Your task to perform on an android device: Search for pizza restaurants on Maps Image 0: 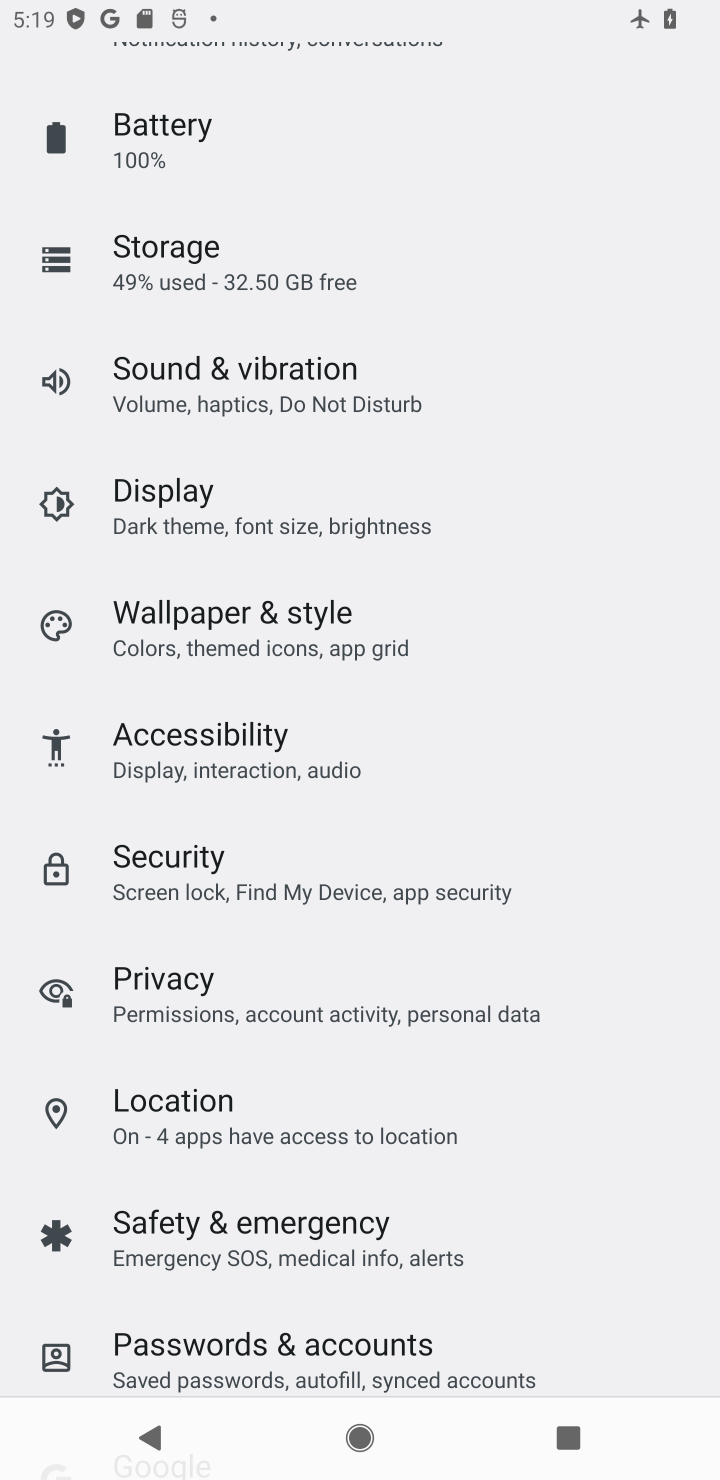
Step 0: press home button
Your task to perform on an android device: Search for pizza restaurants on Maps Image 1: 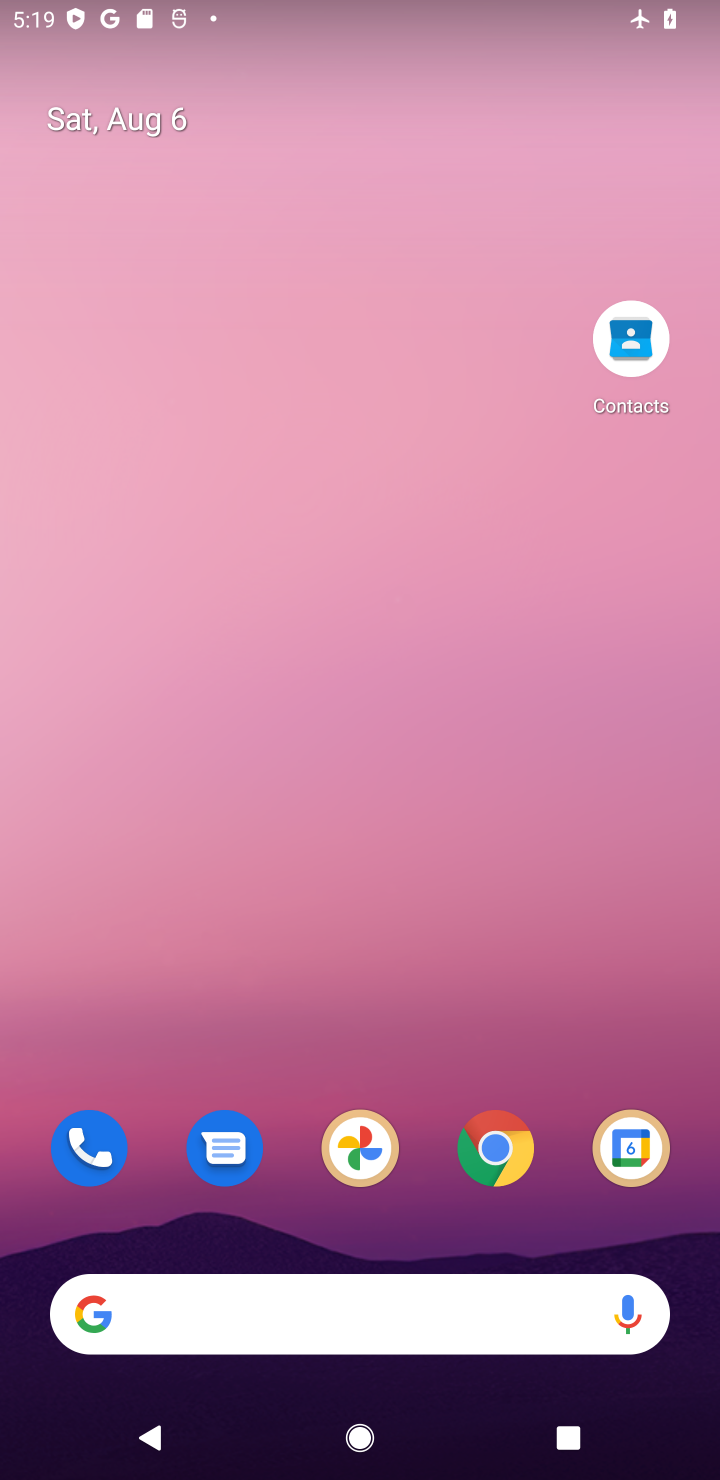
Step 1: drag from (357, 1274) to (254, 59)
Your task to perform on an android device: Search for pizza restaurants on Maps Image 2: 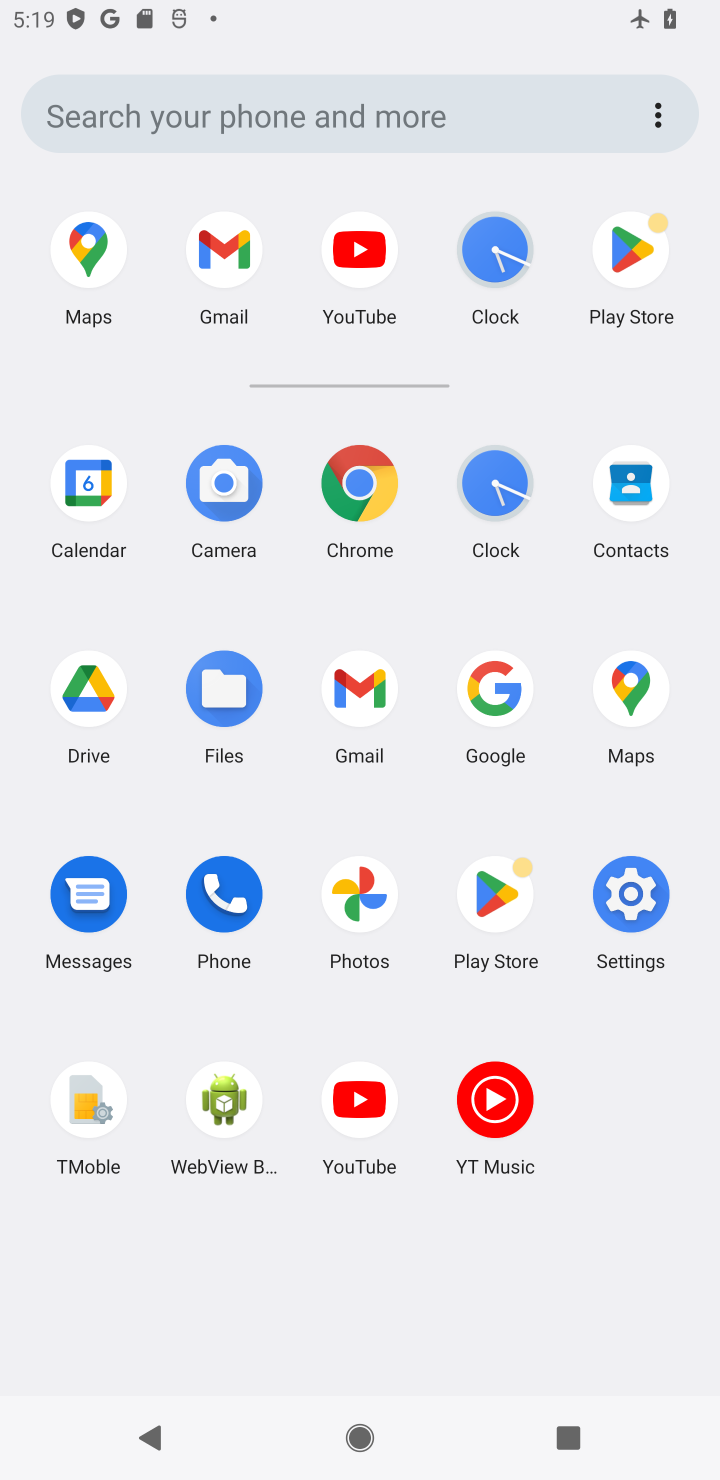
Step 2: click (641, 679)
Your task to perform on an android device: Search for pizza restaurants on Maps Image 3: 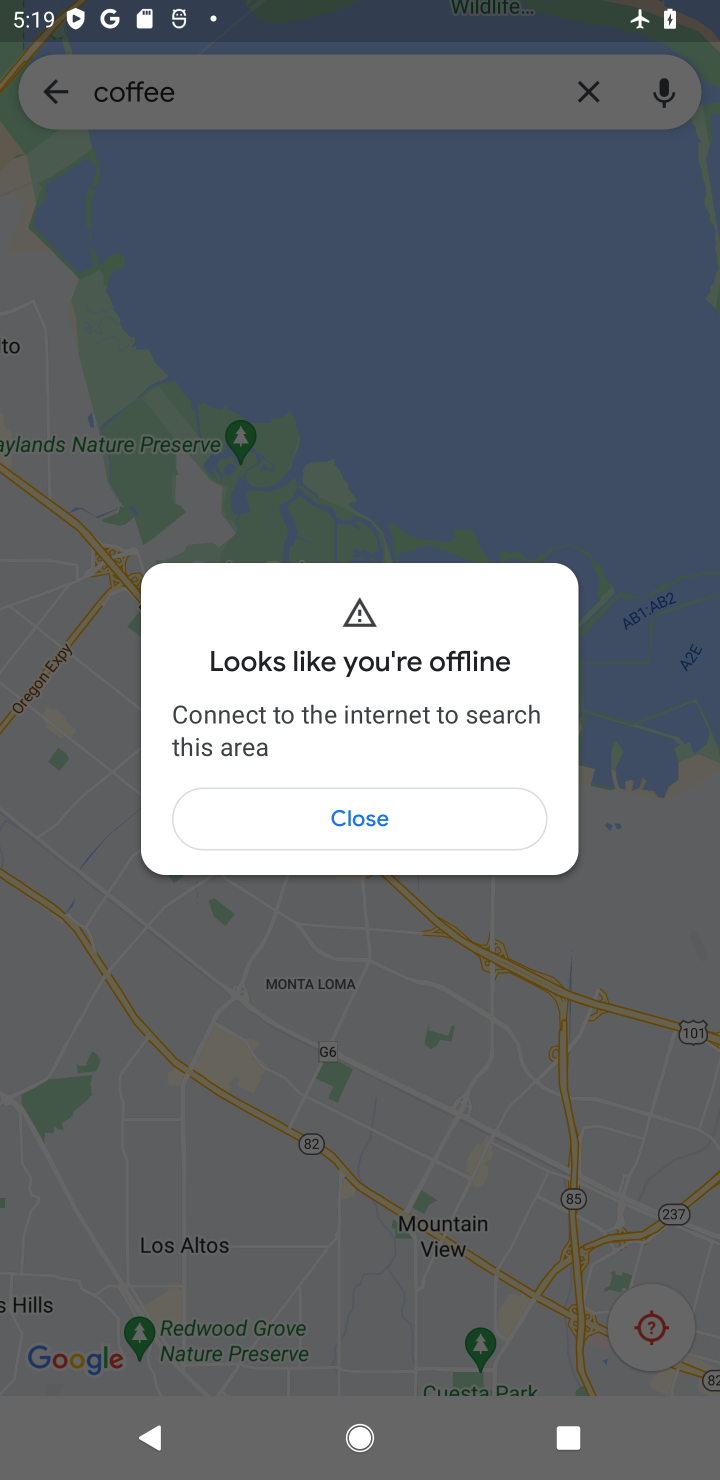
Step 3: click (371, 822)
Your task to perform on an android device: Search for pizza restaurants on Maps Image 4: 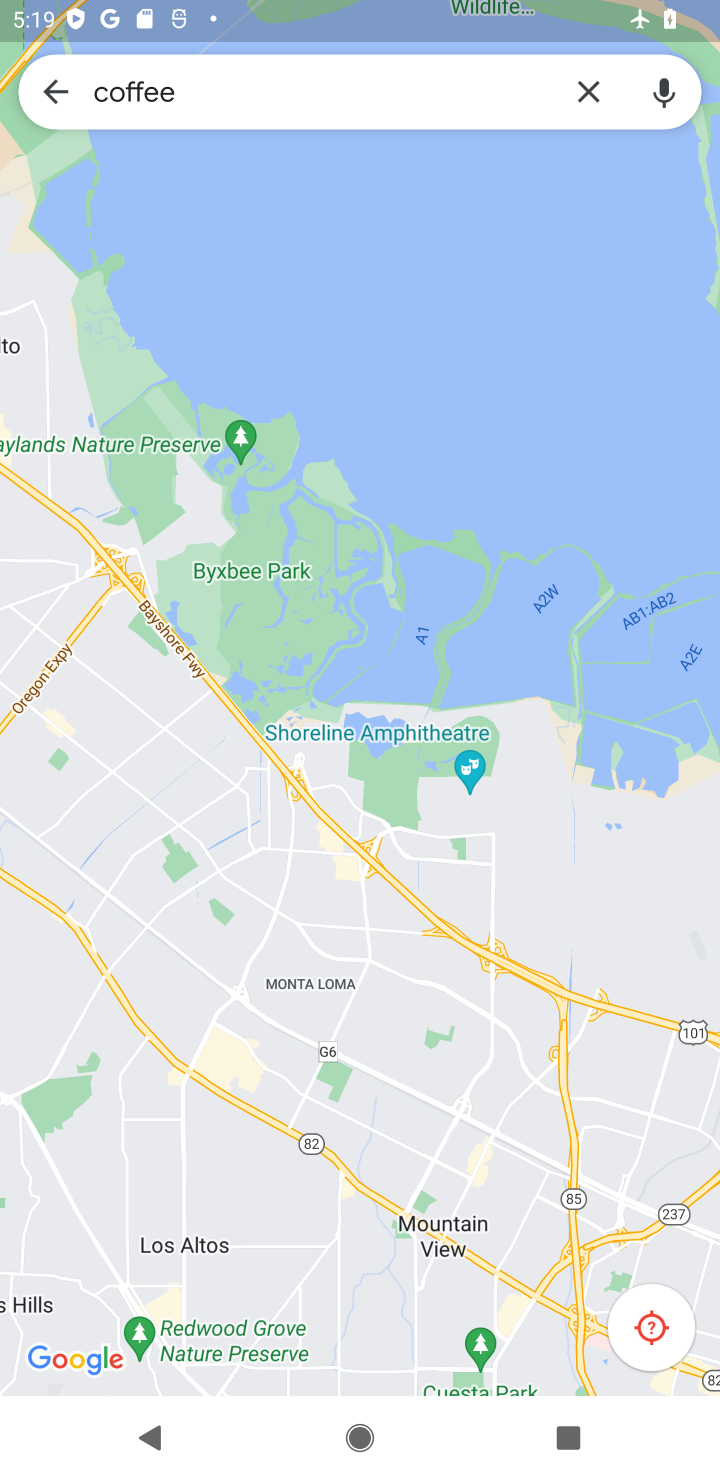
Step 4: click (584, 93)
Your task to perform on an android device: Search for pizza restaurants on Maps Image 5: 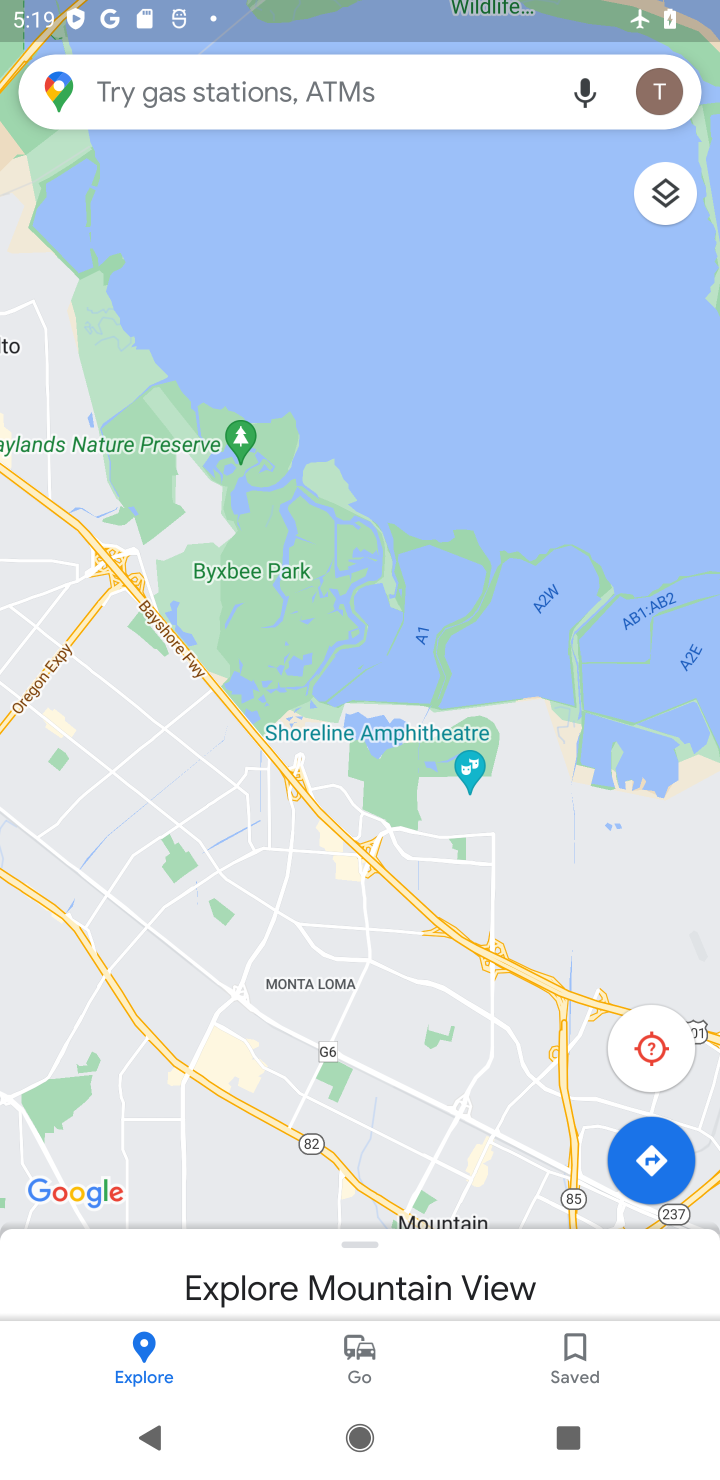
Step 5: click (352, 102)
Your task to perform on an android device: Search for pizza restaurants on Maps Image 6: 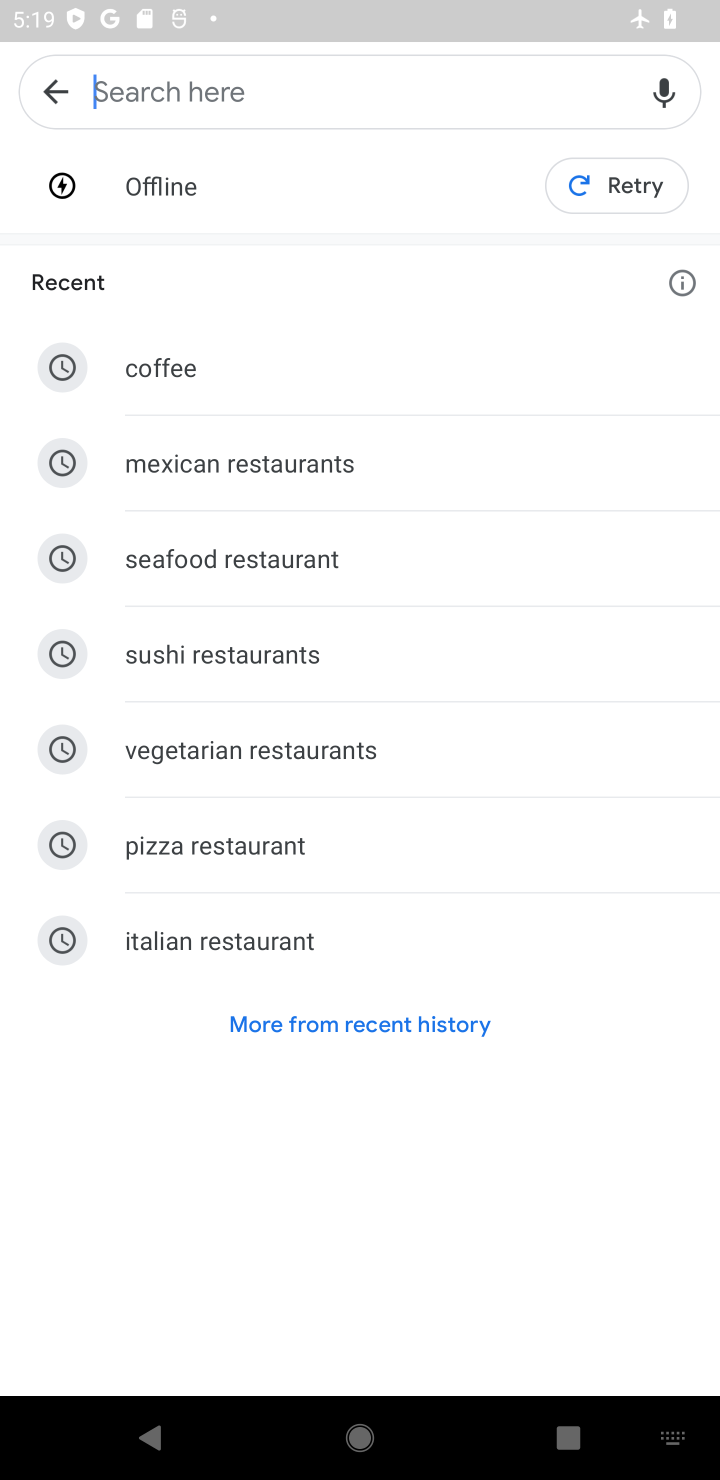
Step 6: click (218, 833)
Your task to perform on an android device: Search for pizza restaurants on Maps Image 7: 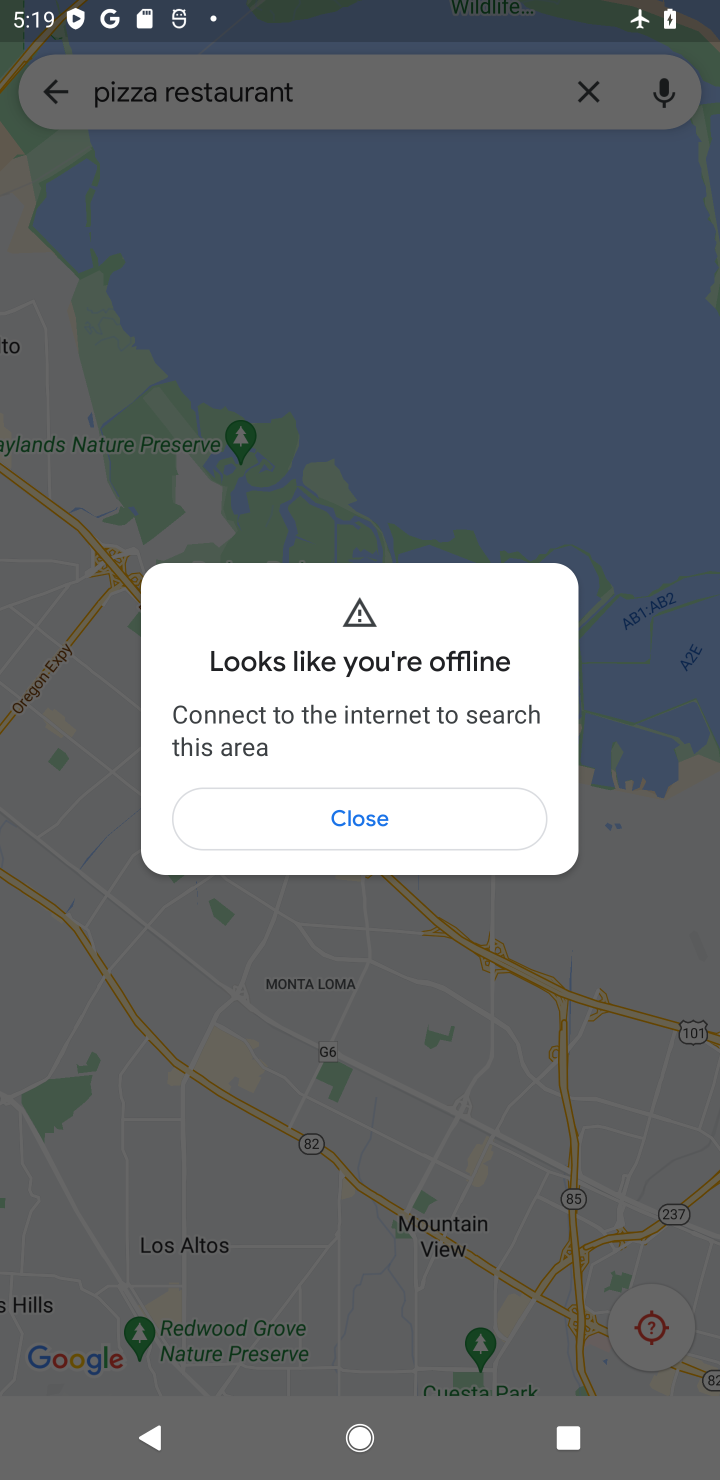
Step 7: click (387, 810)
Your task to perform on an android device: Search for pizza restaurants on Maps Image 8: 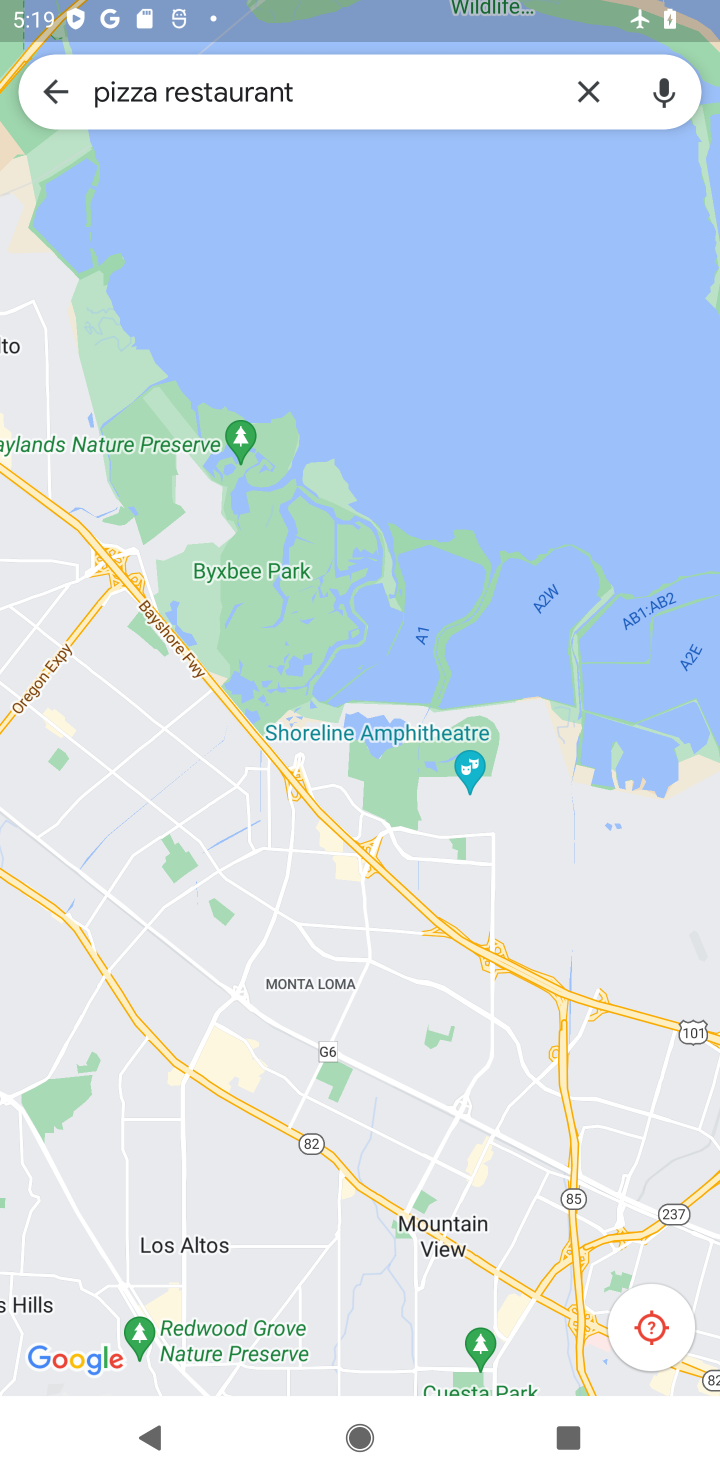
Step 8: task complete